Your task to perform on an android device: remove spam from my inbox in the gmail app Image 0: 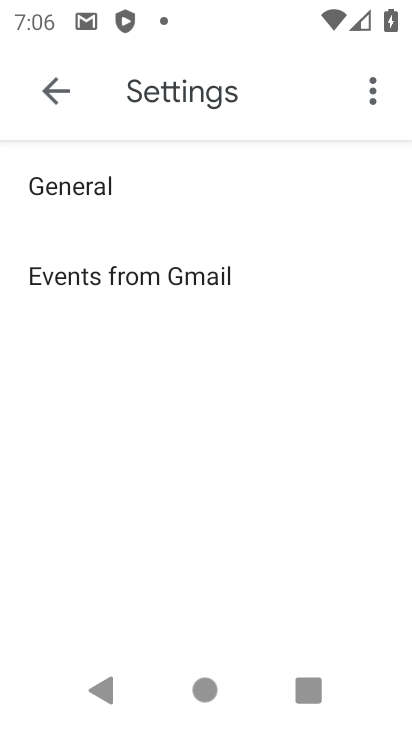
Step 0: press home button
Your task to perform on an android device: remove spam from my inbox in the gmail app Image 1: 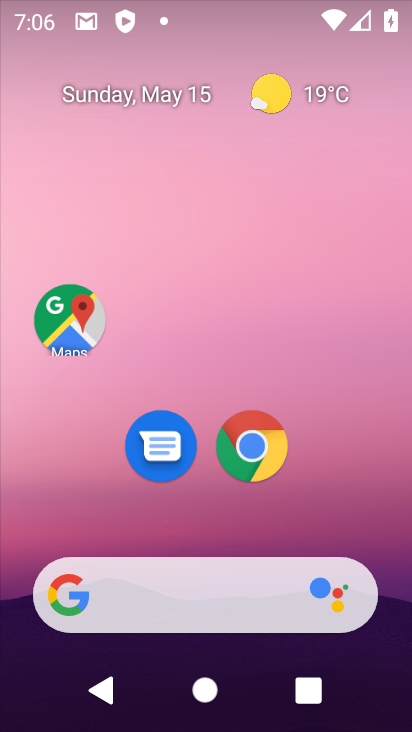
Step 1: drag from (286, 621) to (169, 99)
Your task to perform on an android device: remove spam from my inbox in the gmail app Image 2: 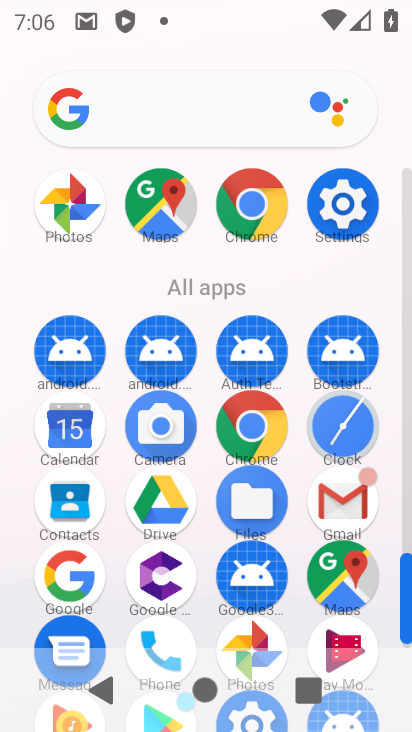
Step 2: click (357, 494)
Your task to perform on an android device: remove spam from my inbox in the gmail app Image 3: 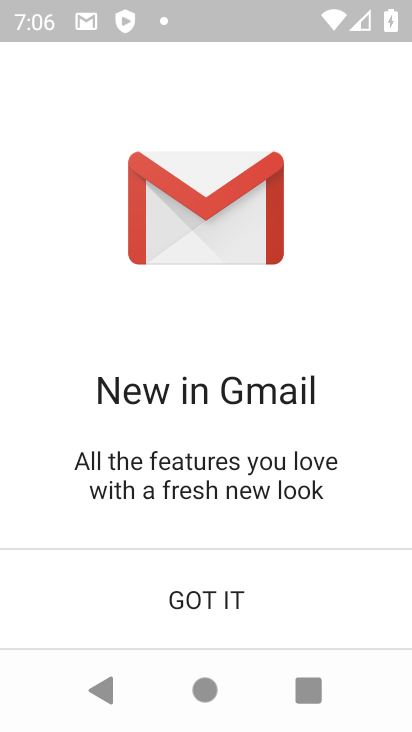
Step 3: click (258, 610)
Your task to perform on an android device: remove spam from my inbox in the gmail app Image 4: 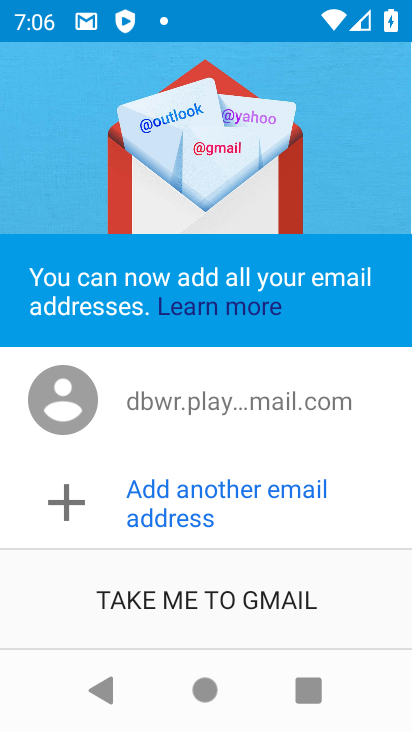
Step 4: click (253, 596)
Your task to perform on an android device: remove spam from my inbox in the gmail app Image 5: 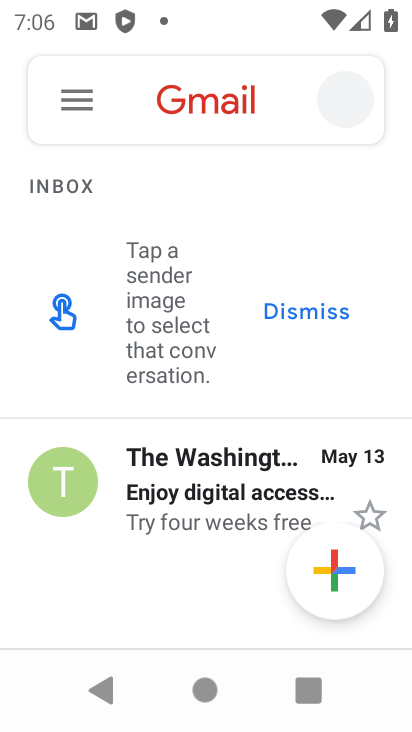
Step 5: click (80, 107)
Your task to perform on an android device: remove spam from my inbox in the gmail app Image 6: 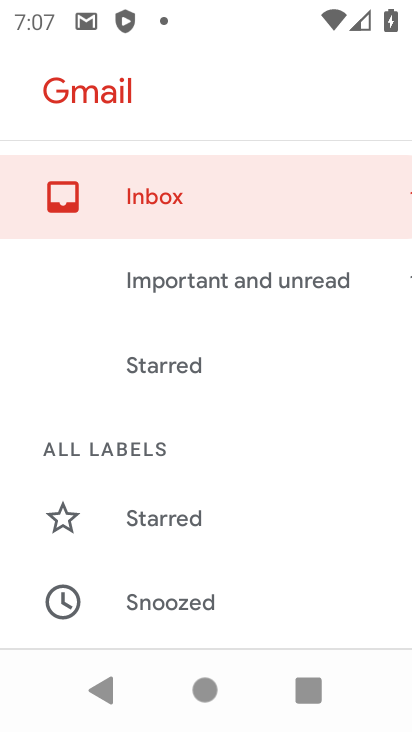
Step 6: drag from (217, 528) to (294, 159)
Your task to perform on an android device: remove spam from my inbox in the gmail app Image 7: 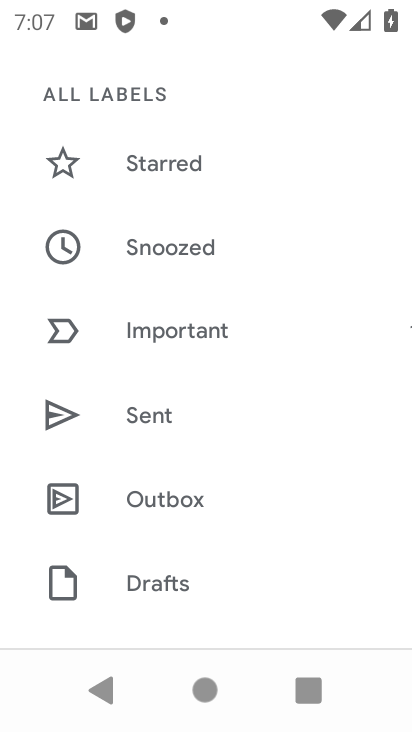
Step 7: drag from (208, 557) to (217, 305)
Your task to perform on an android device: remove spam from my inbox in the gmail app Image 8: 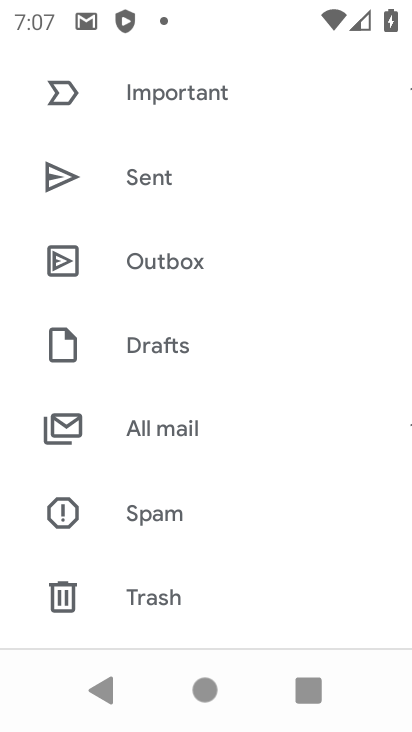
Step 8: click (203, 525)
Your task to perform on an android device: remove spam from my inbox in the gmail app Image 9: 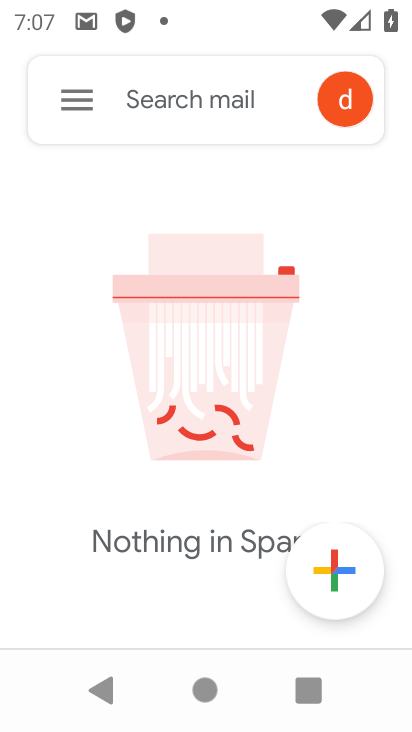
Step 9: task complete